Your task to perform on an android device: open a bookmark in the chrome app Image 0: 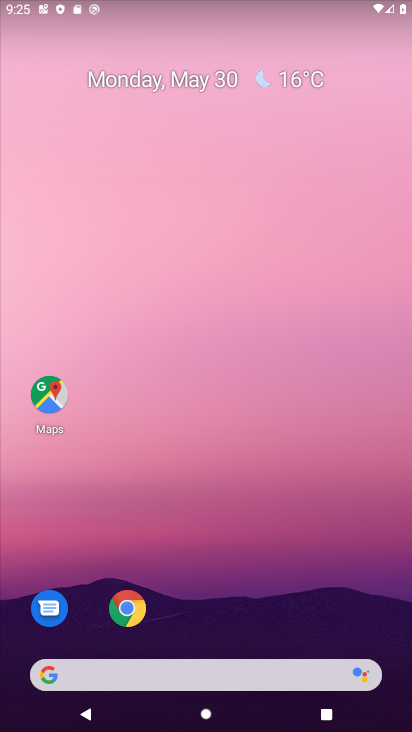
Step 0: click (131, 605)
Your task to perform on an android device: open a bookmark in the chrome app Image 1: 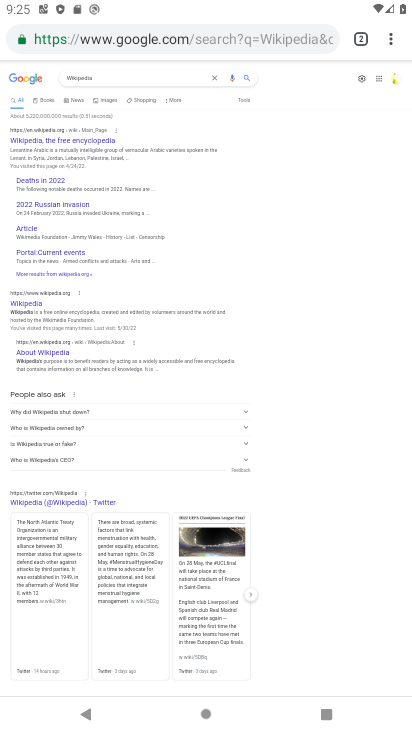
Step 1: click (387, 38)
Your task to perform on an android device: open a bookmark in the chrome app Image 2: 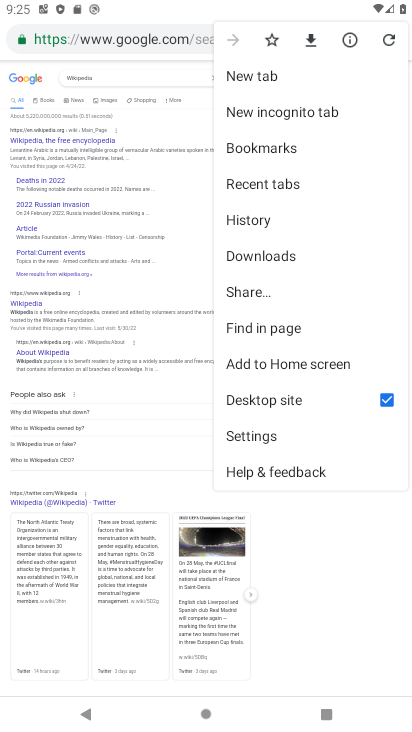
Step 2: click (267, 153)
Your task to perform on an android device: open a bookmark in the chrome app Image 3: 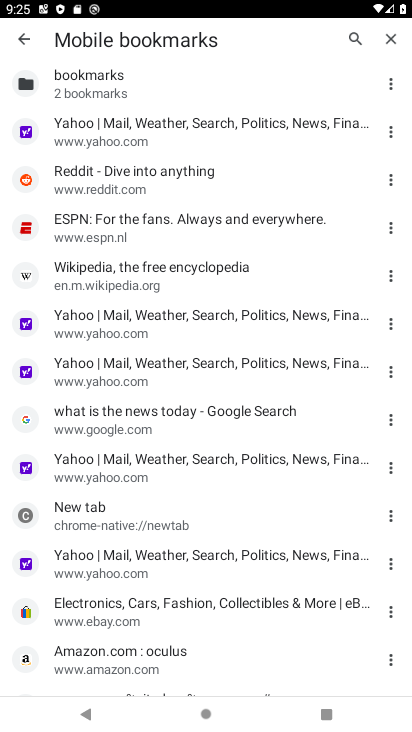
Step 3: task complete